Your task to perform on an android device: Open Google Chrome Image 0: 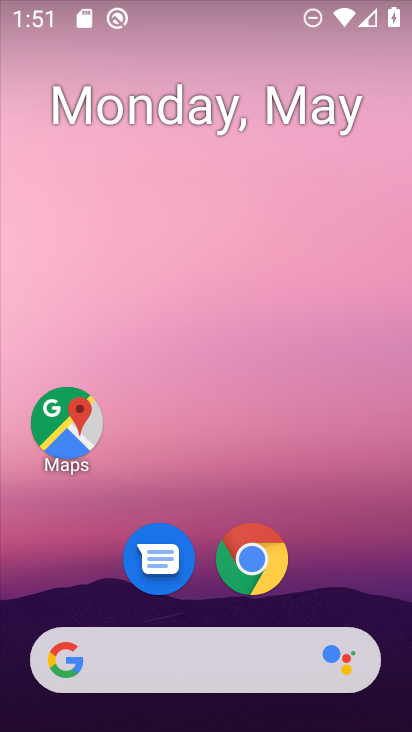
Step 0: press home button
Your task to perform on an android device: Open Google Chrome Image 1: 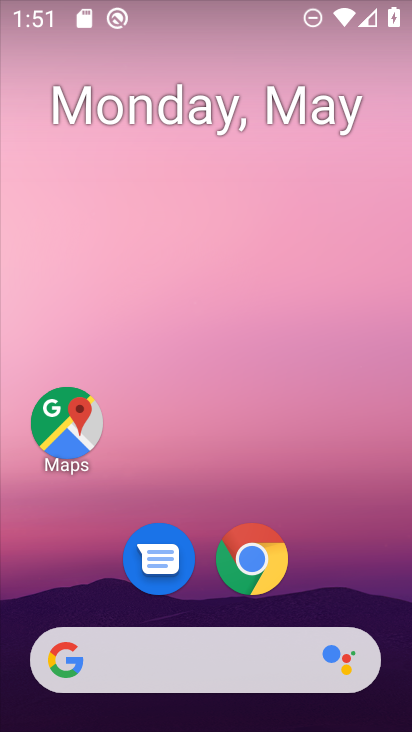
Step 1: click (254, 543)
Your task to perform on an android device: Open Google Chrome Image 2: 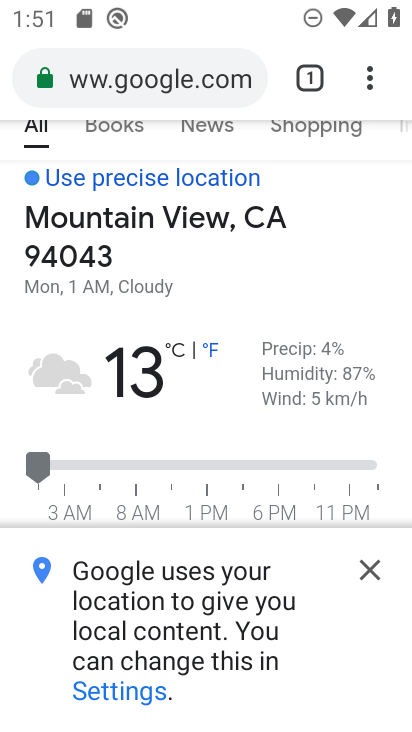
Step 2: task complete